Your task to perform on an android device: Go to accessibility settings Image 0: 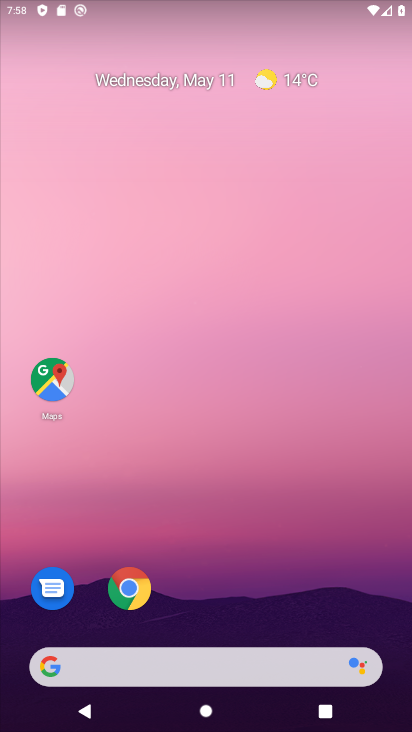
Step 0: drag from (180, 634) to (303, 62)
Your task to perform on an android device: Go to accessibility settings Image 1: 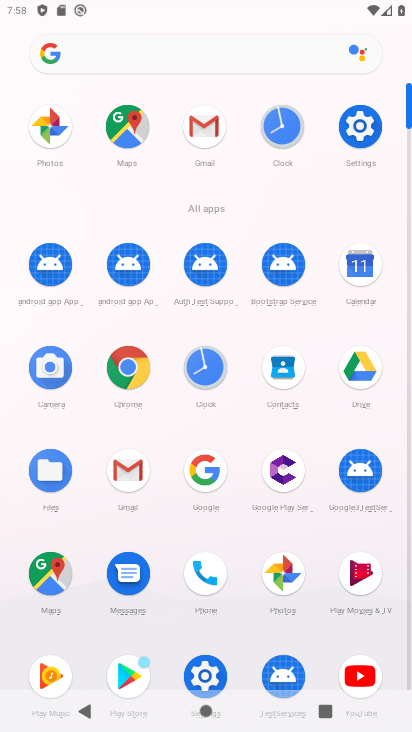
Step 1: click (369, 123)
Your task to perform on an android device: Go to accessibility settings Image 2: 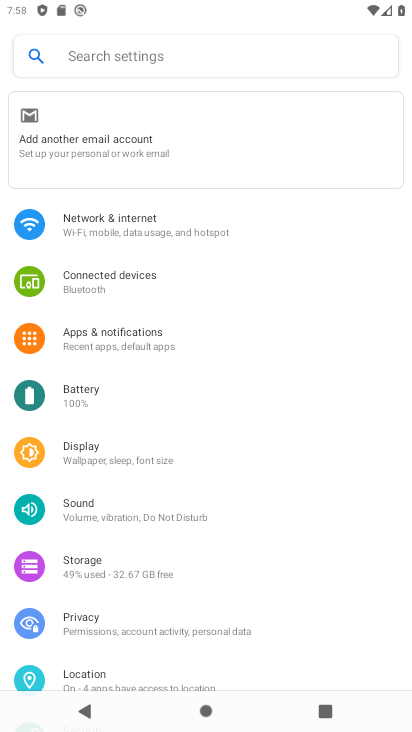
Step 2: drag from (194, 640) to (265, 300)
Your task to perform on an android device: Go to accessibility settings Image 3: 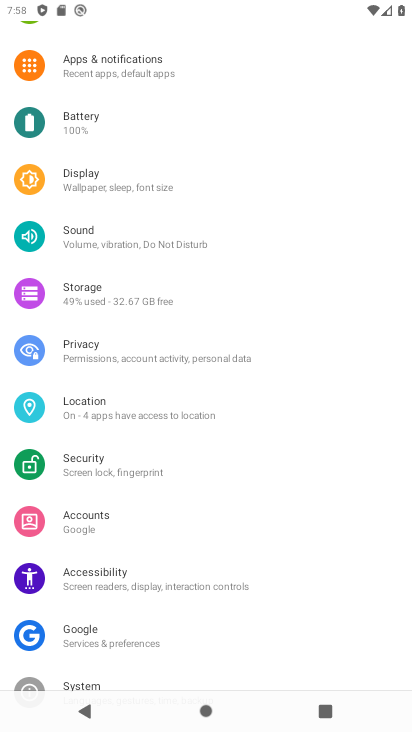
Step 3: drag from (211, 614) to (232, 369)
Your task to perform on an android device: Go to accessibility settings Image 4: 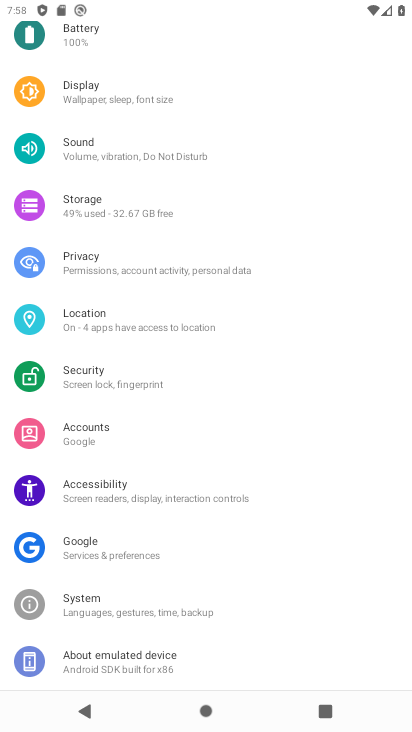
Step 4: click (164, 492)
Your task to perform on an android device: Go to accessibility settings Image 5: 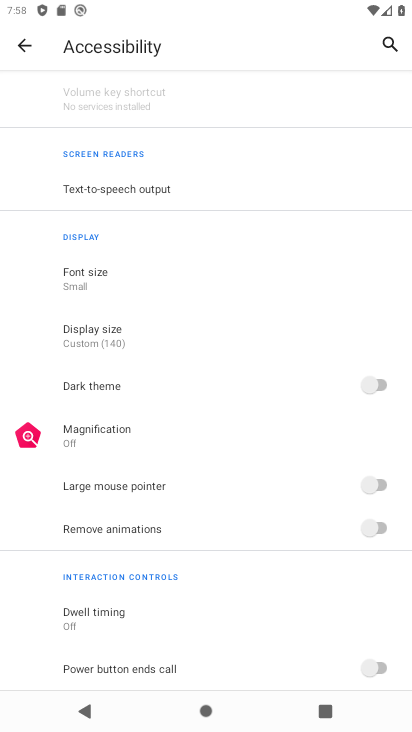
Step 5: task complete